Your task to perform on an android device: Check the news Image 0: 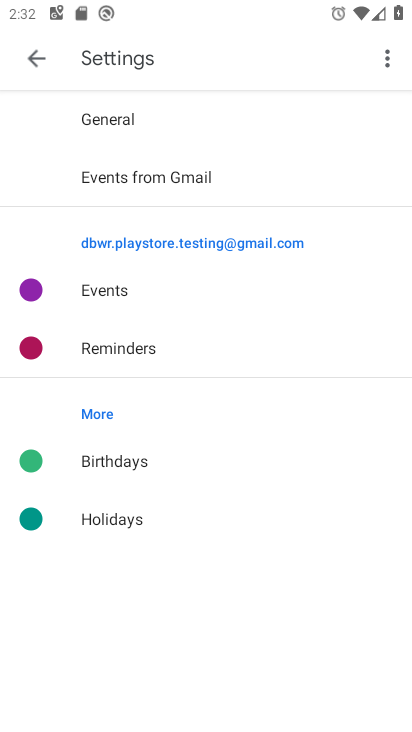
Step 0: press home button
Your task to perform on an android device: Check the news Image 1: 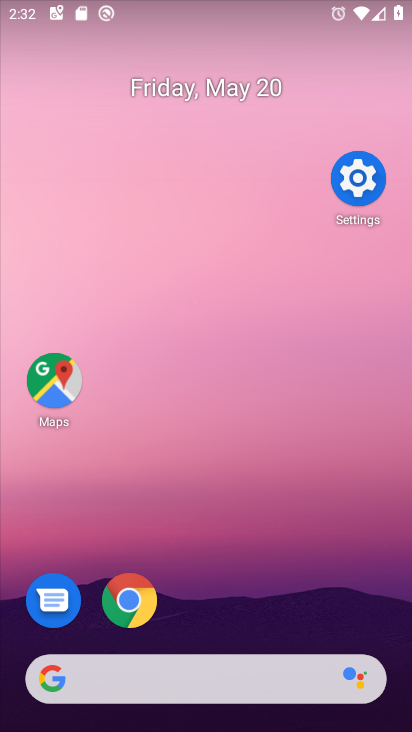
Step 1: click (193, 672)
Your task to perform on an android device: Check the news Image 2: 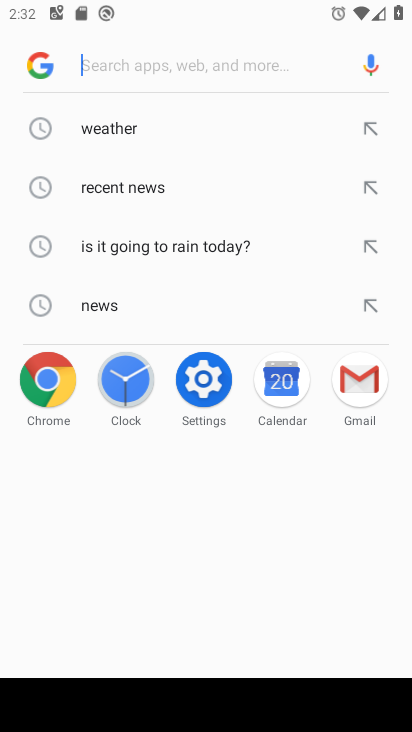
Step 2: click (121, 304)
Your task to perform on an android device: Check the news Image 3: 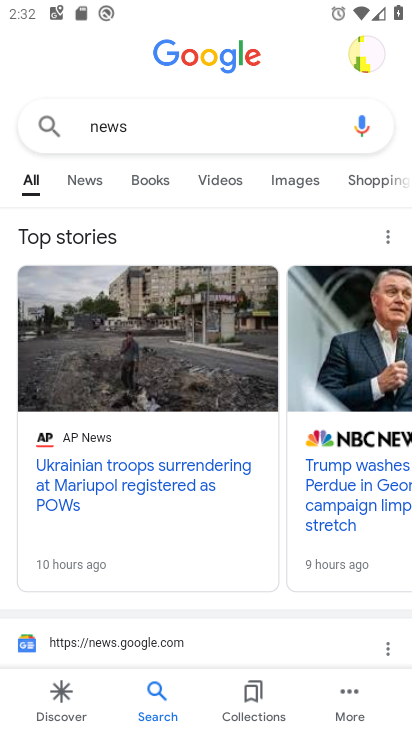
Step 3: task complete